Your task to perform on an android device: See recent photos Image 0: 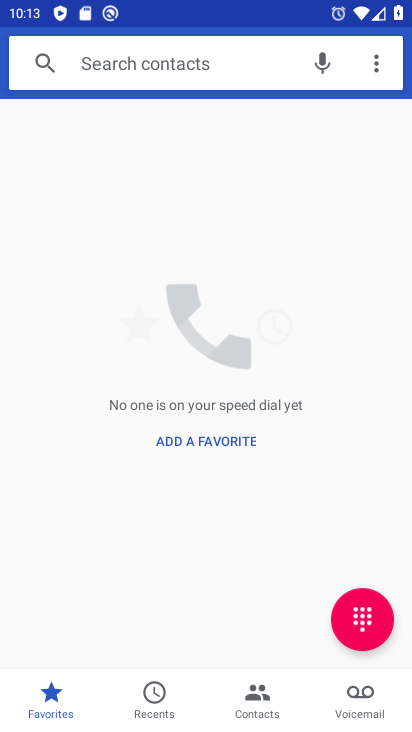
Step 0: press home button
Your task to perform on an android device: See recent photos Image 1: 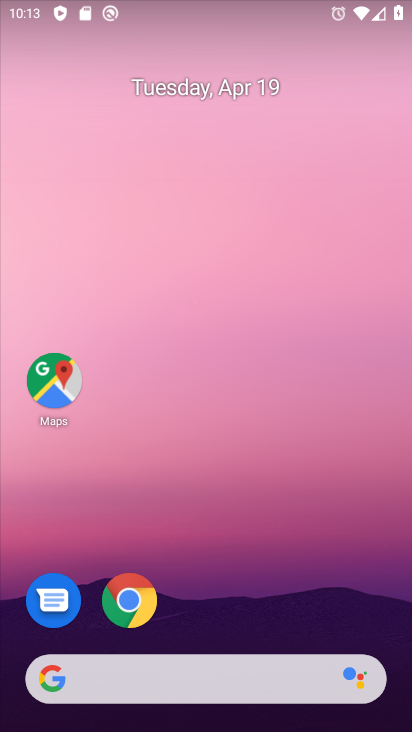
Step 1: drag from (279, 565) to (242, 194)
Your task to perform on an android device: See recent photos Image 2: 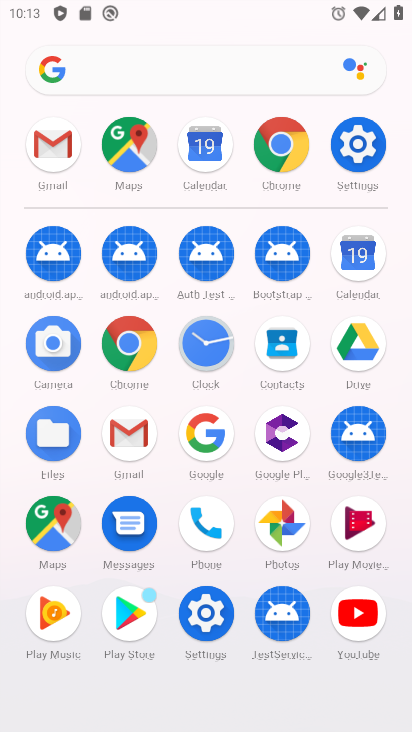
Step 2: click (284, 534)
Your task to perform on an android device: See recent photos Image 3: 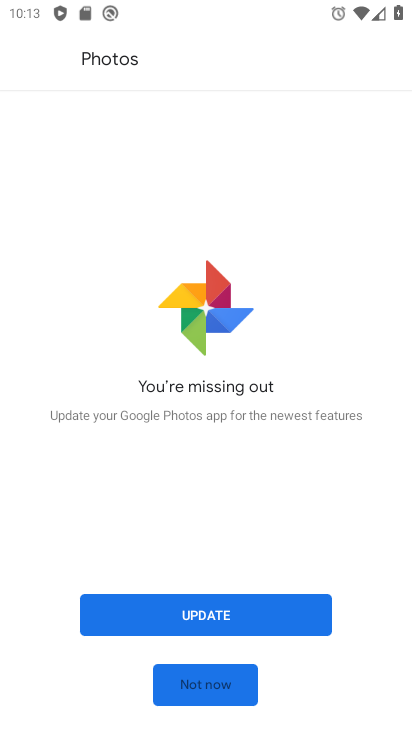
Step 3: click (214, 613)
Your task to perform on an android device: See recent photos Image 4: 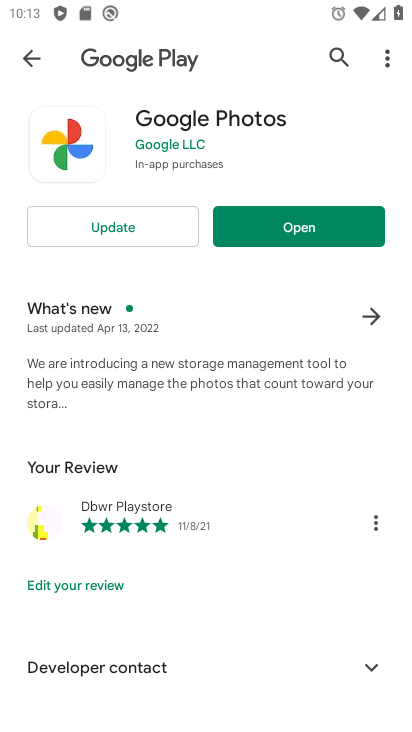
Step 4: click (131, 224)
Your task to perform on an android device: See recent photos Image 5: 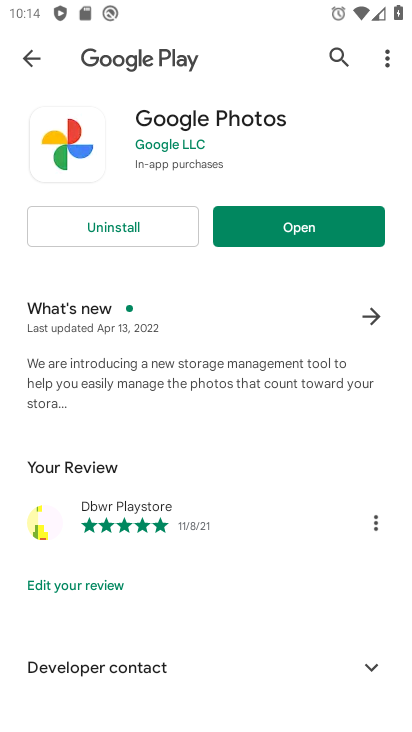
Step 5: click (240, 236)
Your task to perform on an android device: See recent photos Image 6: 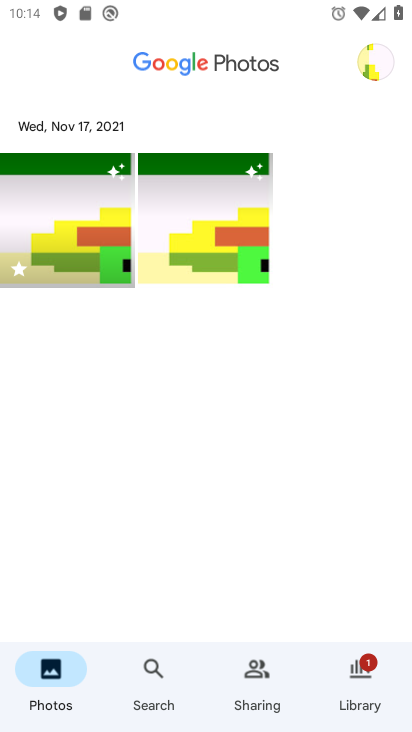
Step 6: click (89, 223)
Your task to perform on an android device: See recent photos Image 7: 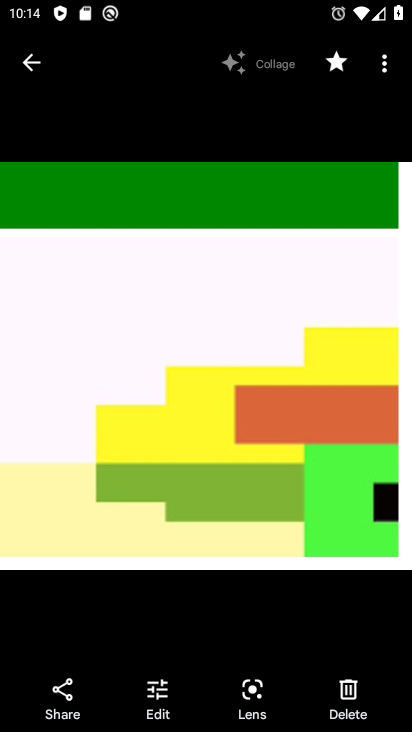
Step 7: task complete